Your task to perform on an android device: toggle notifications settings in the gmail app Image 0: 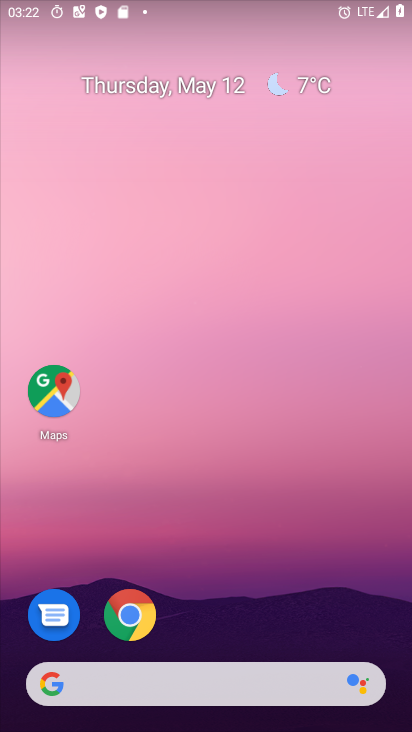
Step 0: drag from (214, 677) to (190, 136)
Your task to perform on an android device: toggle notifications settings in the gmail app Image 1: 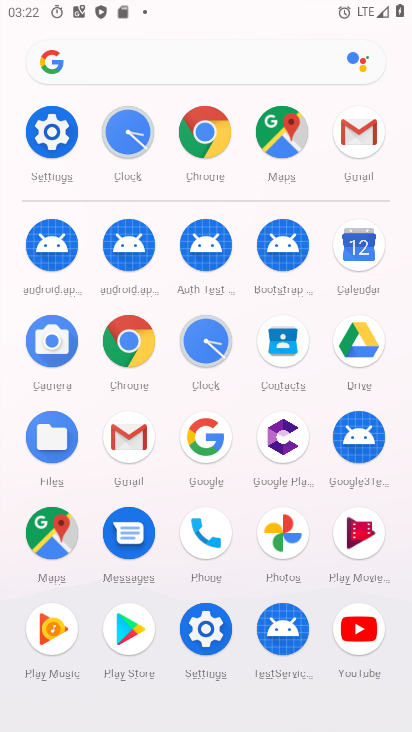
Step 1: click (136, 444)
Your task to perform on an android device: toggle notifications settings in the gmail app Image 2: 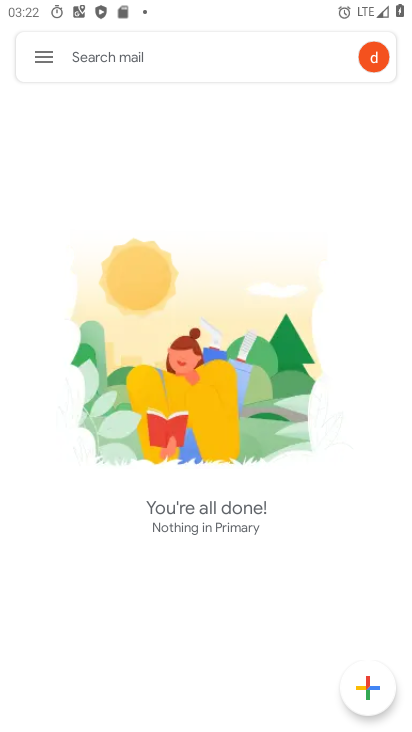
Step 2: click (47, 54)
Your task to perform on an android device: toggle notifications settings in the gmail app Image 3: 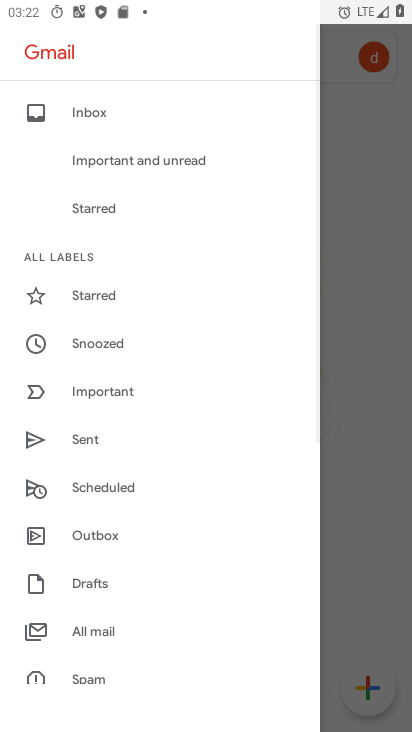
Step 3: drag from (148, 560) to (95, 94)
Your task to perform on an android device: toggle notifications settings in the gmail app Image 4: 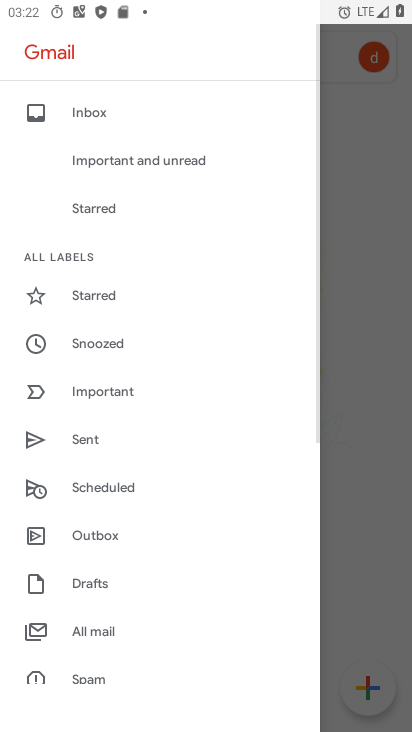
Step 4: drag from (122, 582) to (110, 111)
Your task to perform on an android device: toggle notifications settings in the gmail app Image 5: 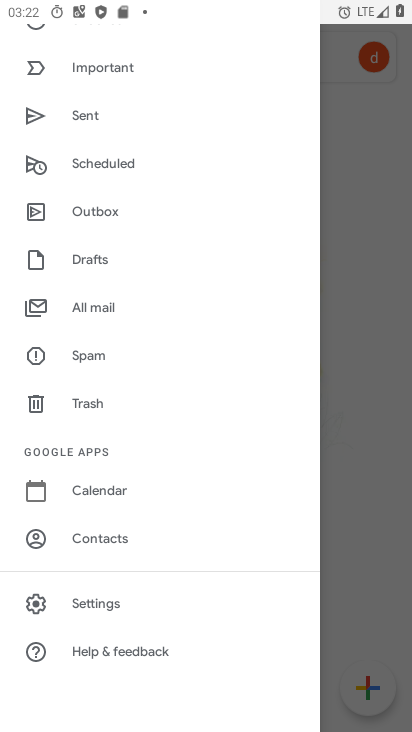
Step 5: click (105, 607)
Your task to perform on an android device: toggle notifications settings in the gmail app Image 6: 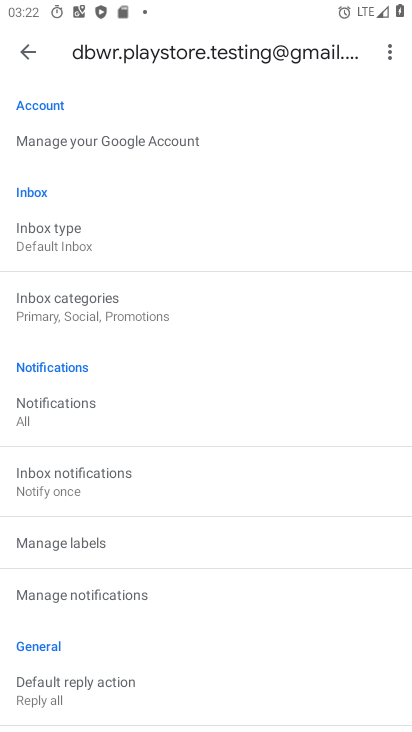
Step 6: click (101, 592)
Your task to perform on an android device: toggle notifications settings in the gmail app Image 7: 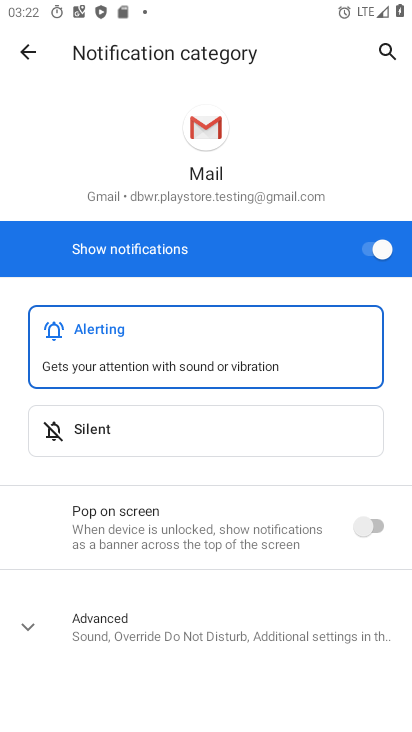
Step 7: click (386, 257)
Your task to perform on an android device: toggle notifications settings in the gmail app Image 8: 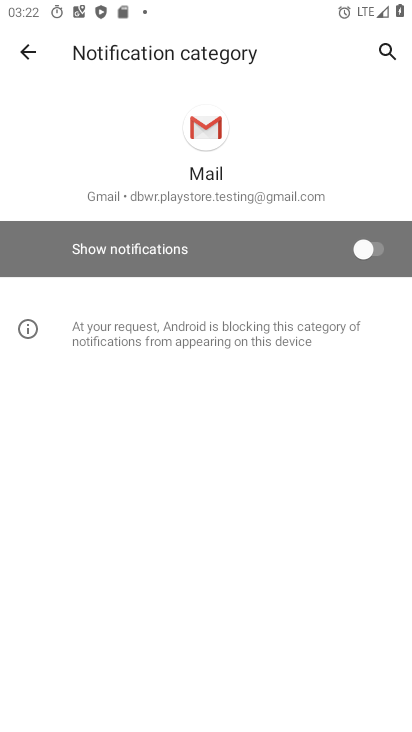
Step 8: task complete